Your task to perform on an android device: turn off translation in the chrome app Image 0: 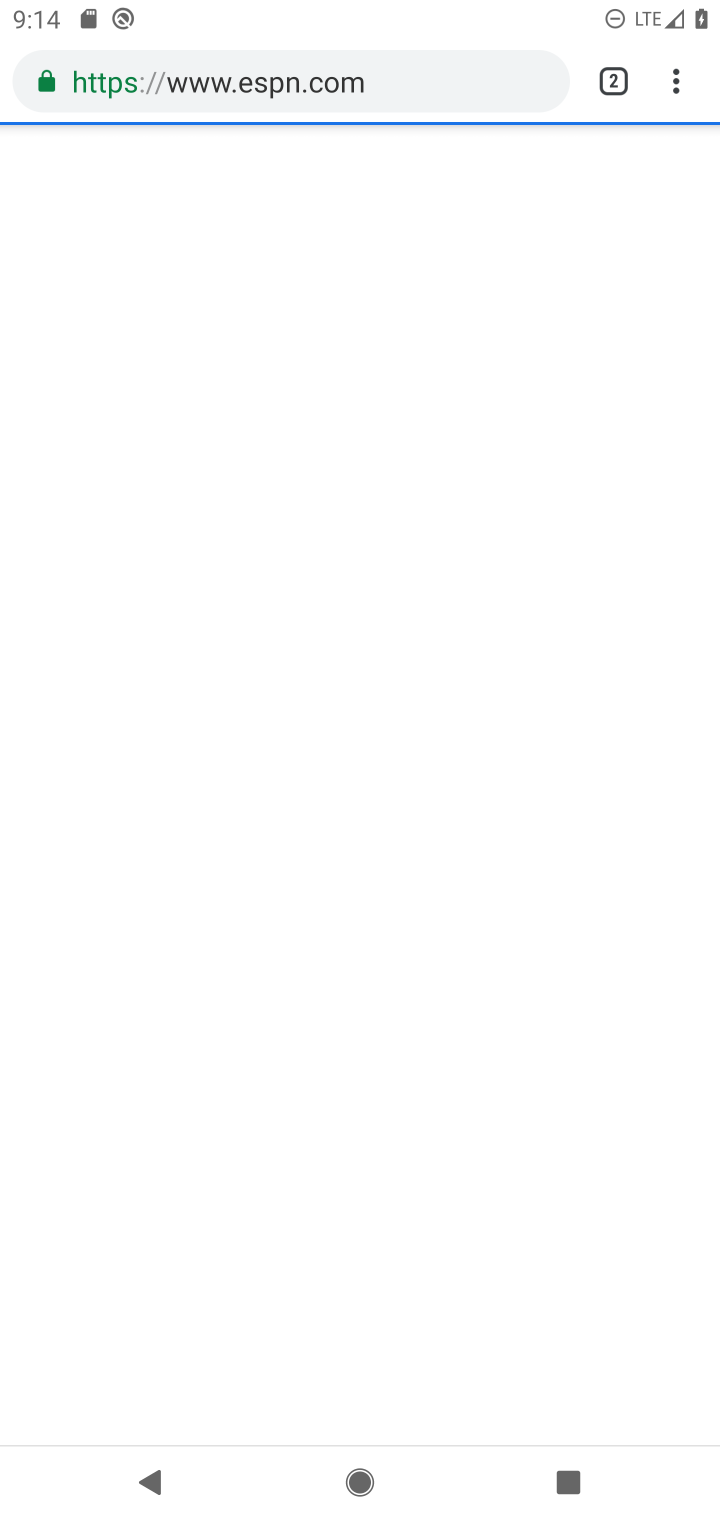
Step 0: press home button
Your task to perform on an android device: turn off translation in the chrome app Image 1: 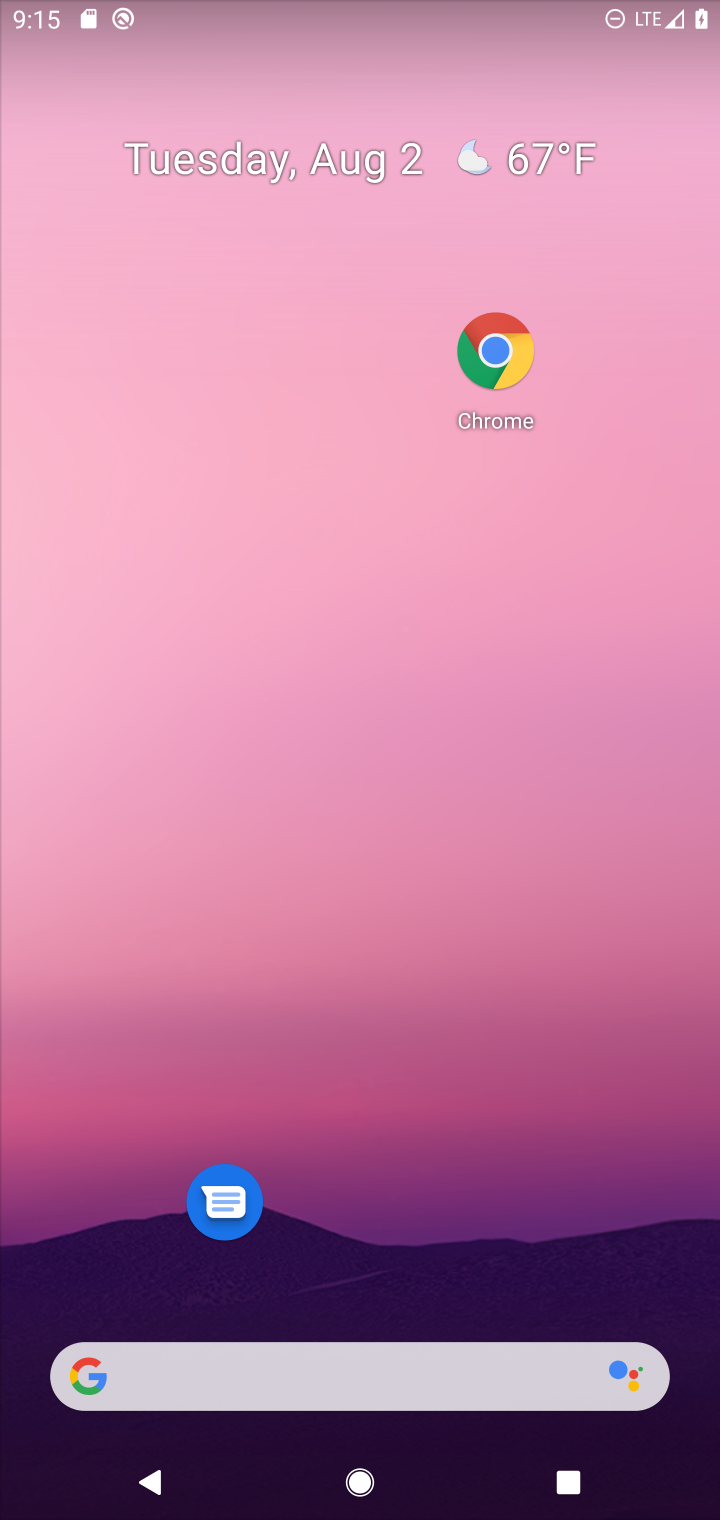
Step 1: click (500, 343)
Your task to perform on an android device: turn off translation in the chrome app Image 2: 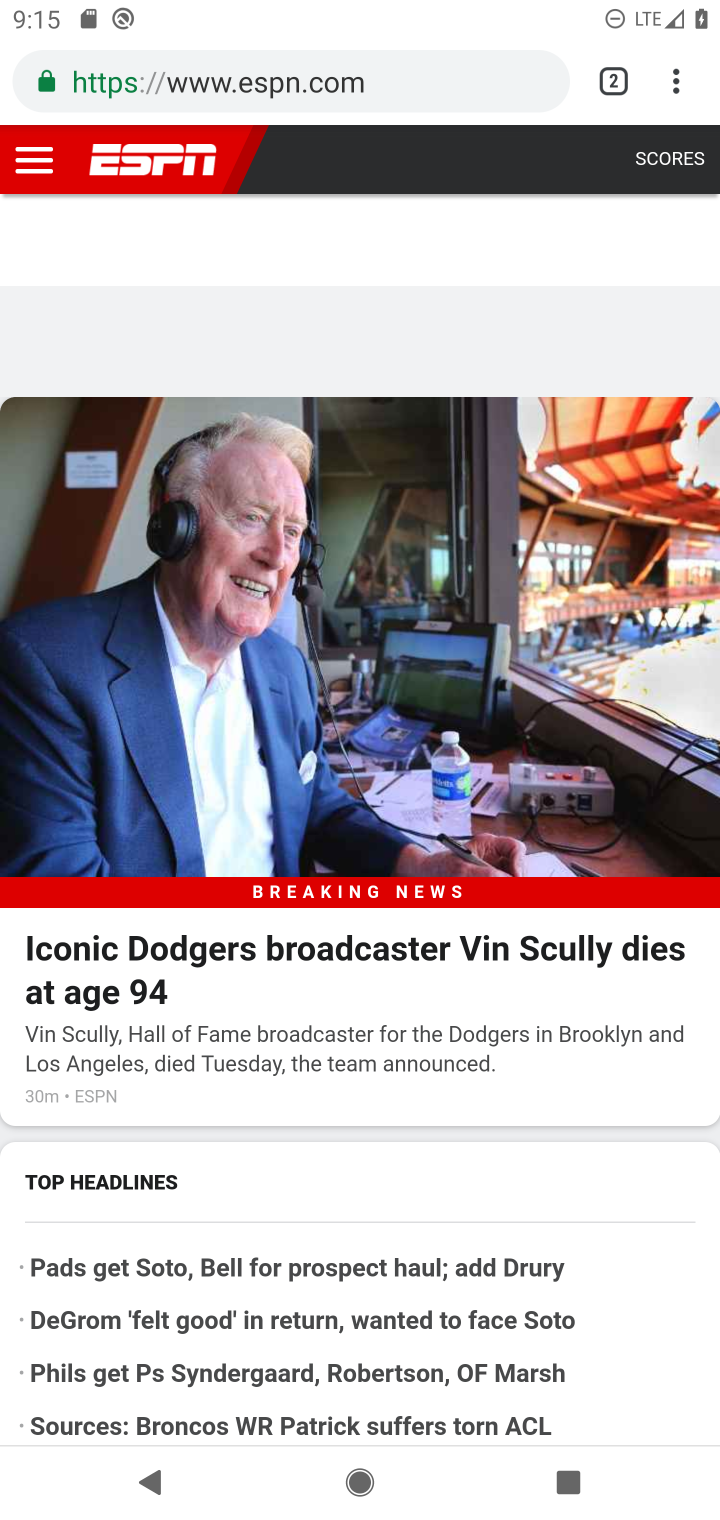
Step 2: click (679, 79)
Your task to perform on an android device: turn off translation in the chrome app Image 3: 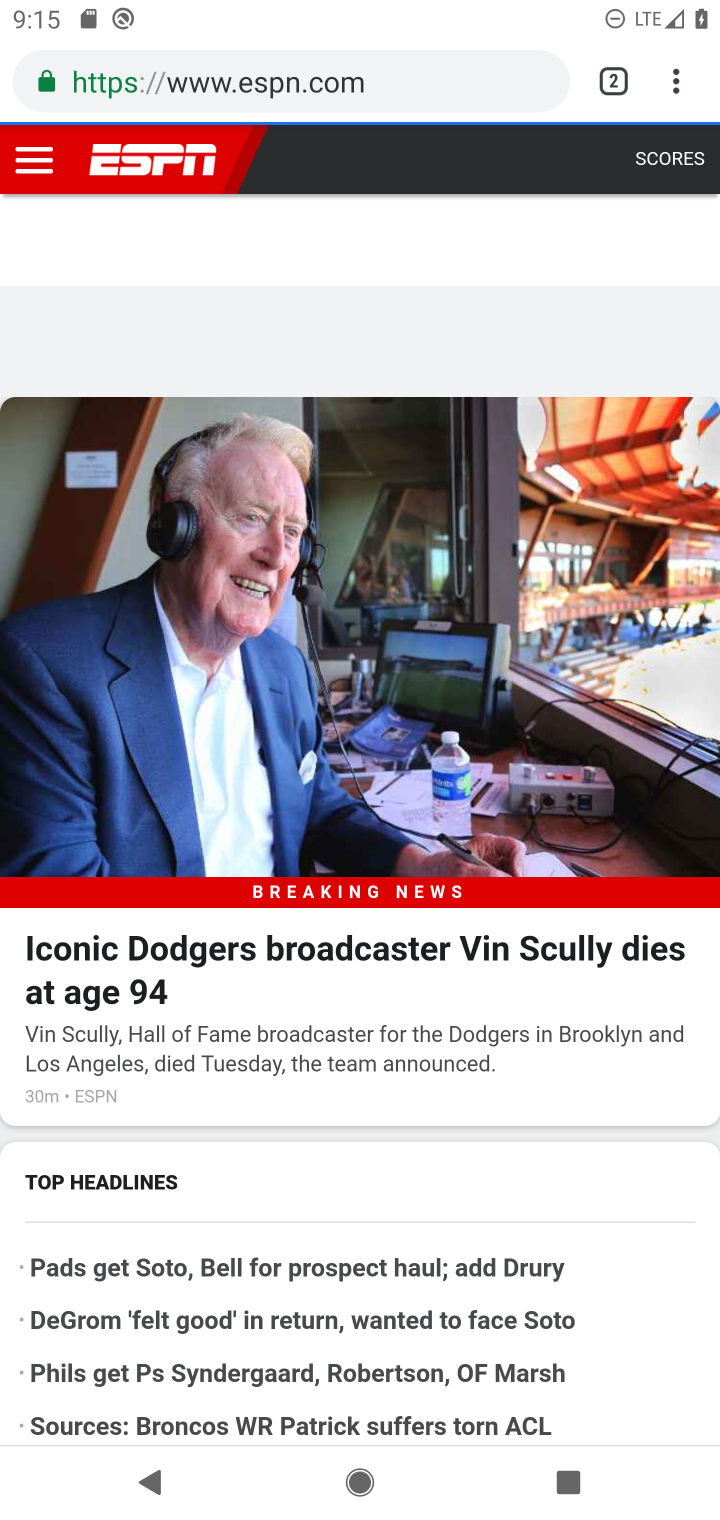
Step 3: click (670, 79)
Your task to perform on an android device: turn off translation in the chrome app Image 4: 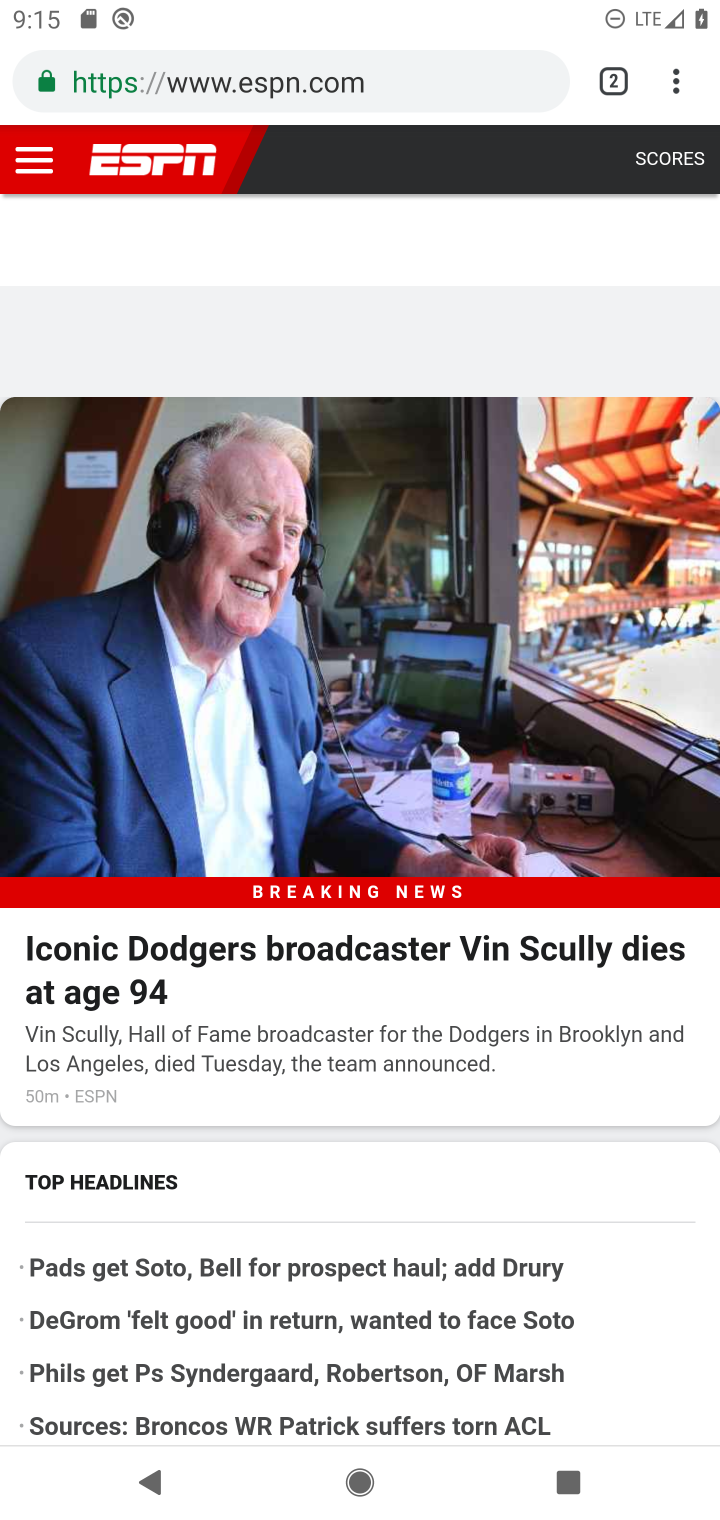
Step 4: drag from (681, 76) to (360, 978)
Your task to perform on an android device: turn off translation in the chrome app Image 5: 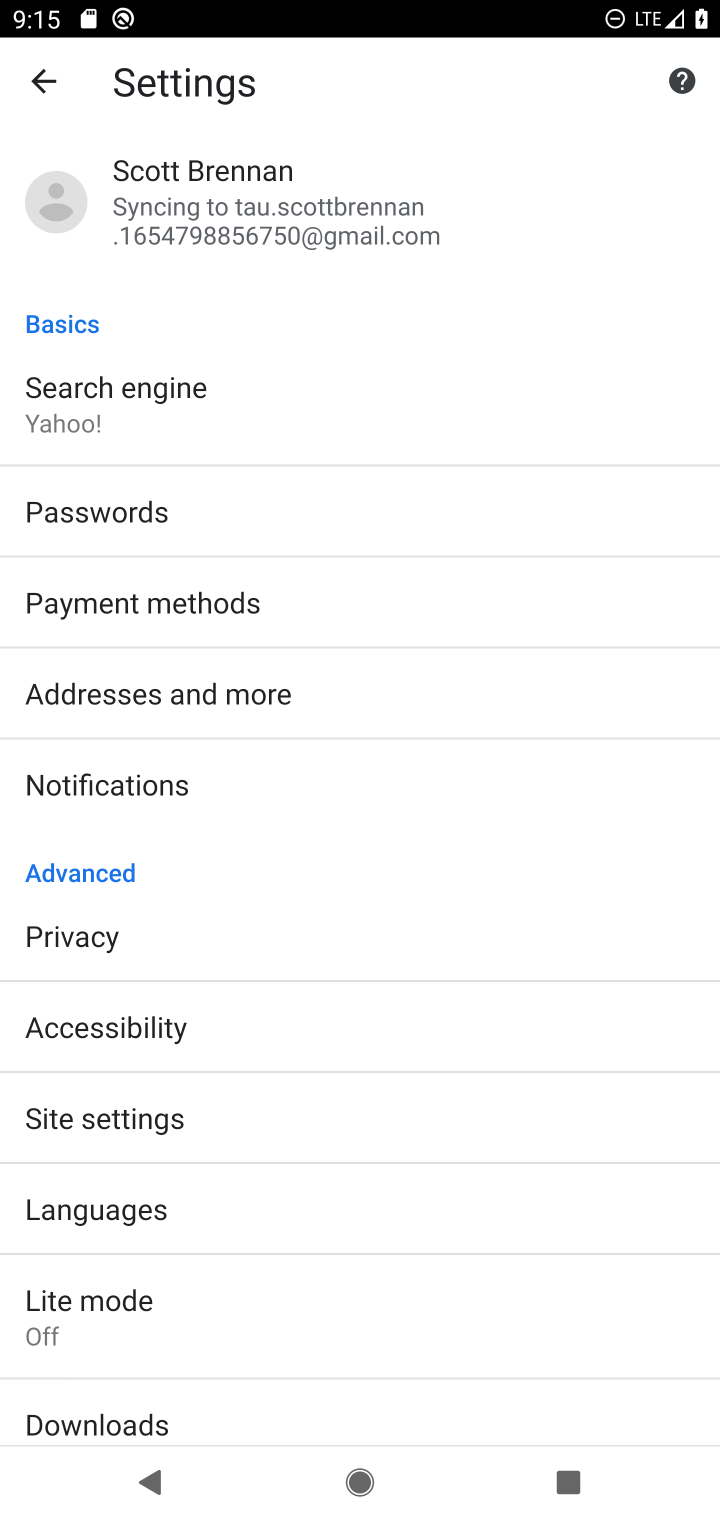
Step 5: click (137, 1219)
Your task to perform on an android device: turn off translation in the chrome app Image 6: 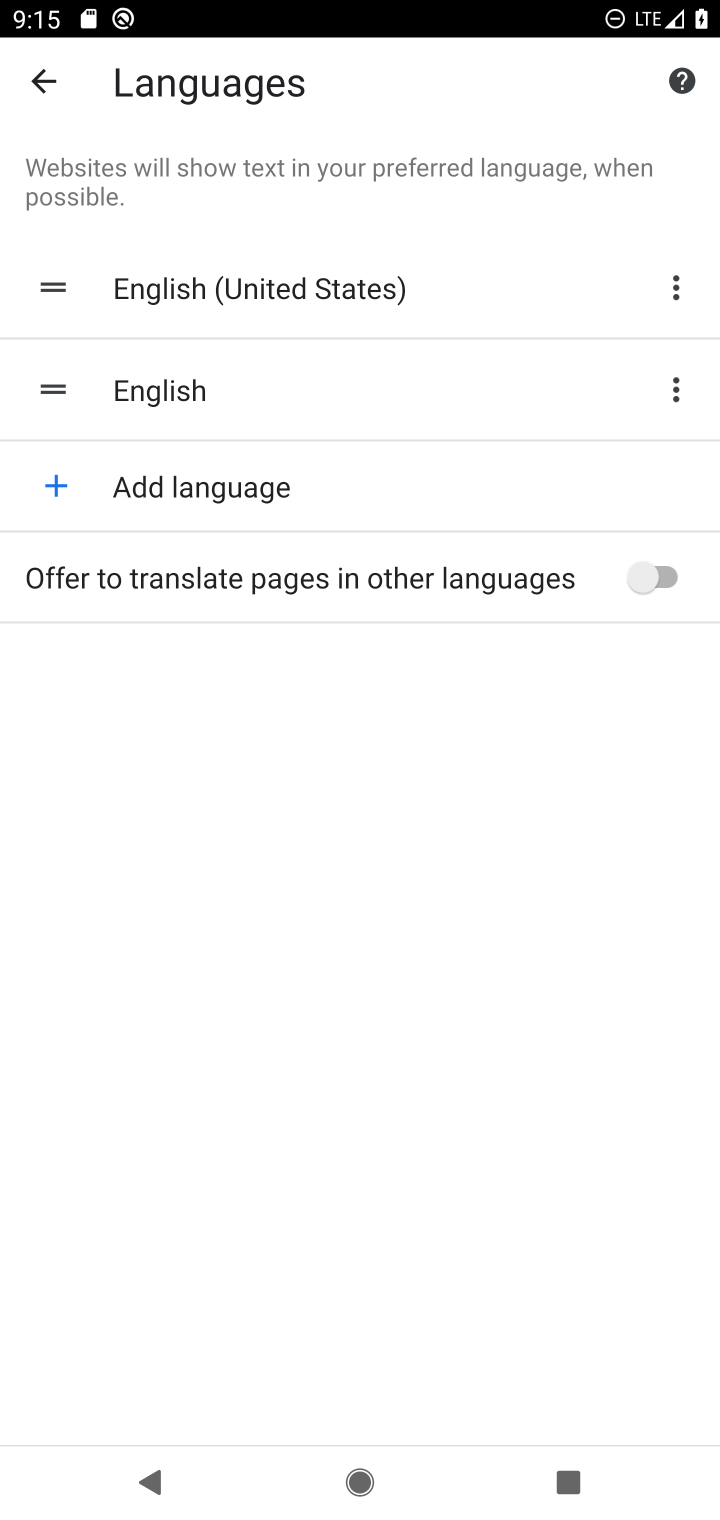
Step 6: task complete